Your task to perform on an android device: Open Yahoo.com Image 0: 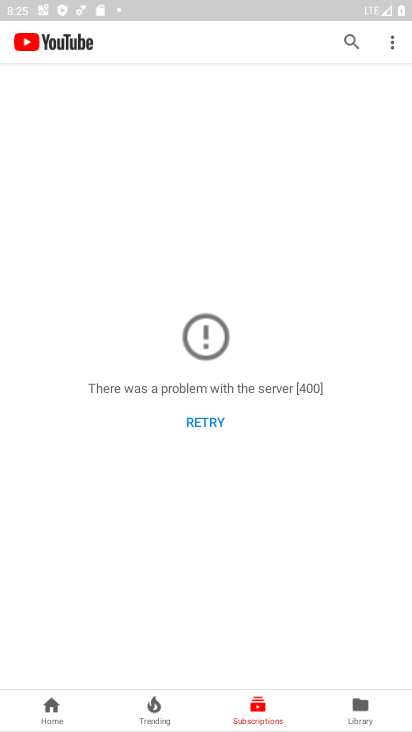
Step 0: press home button
Your task to perform on an android device: Open Yahoo.com Image 1: 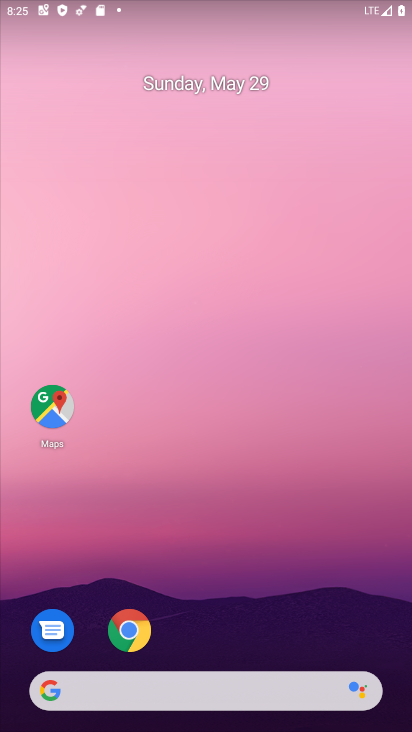
Step 1: click (143, 622)
Your task to perform on an android device: Open Yahoo.com Image 2: 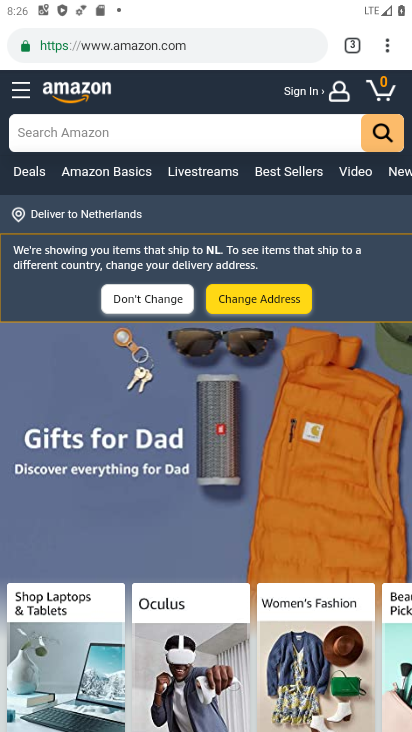
Step 2: click (349, 35)
Your task to perform on an android device: Open Yahoo.com Image 3: 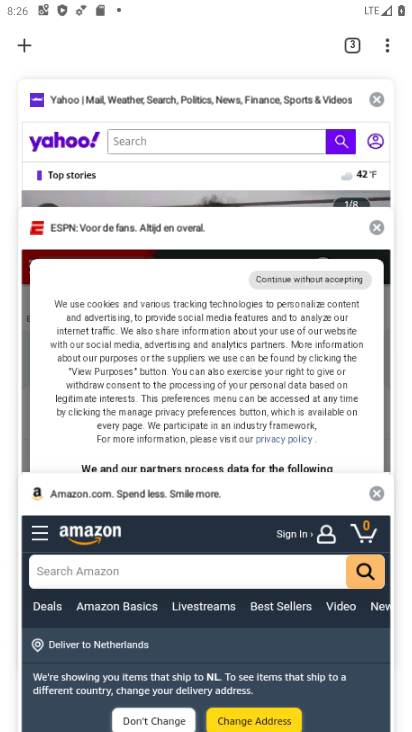
Step 3: click (47, 95)
Your task to perform on an android device: Open Yahoo.com Image 4: 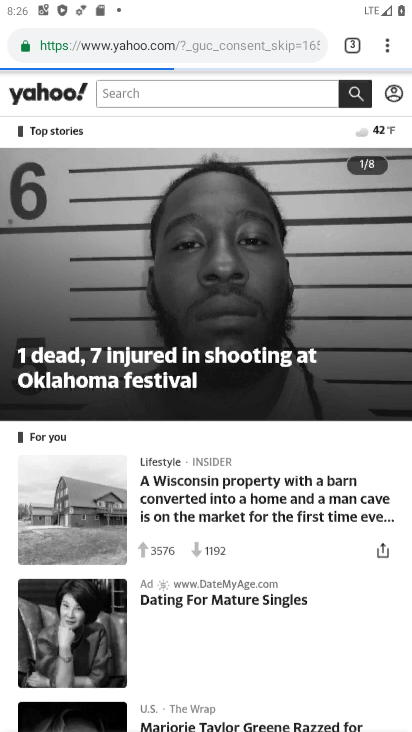
Step 4: task complete